Your task to perform on an android device: check the backup settings in the google photos Image 0: 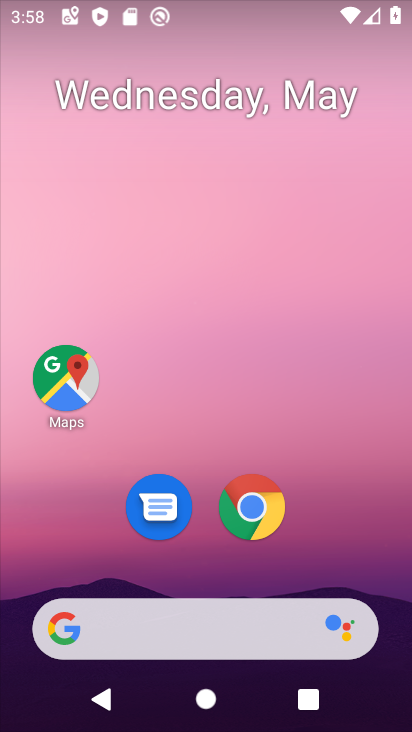
Step 0: drag from (194, 625) to (248, 85)
Your task to perform on an android device: check the backup settings in the google photos Image 1: 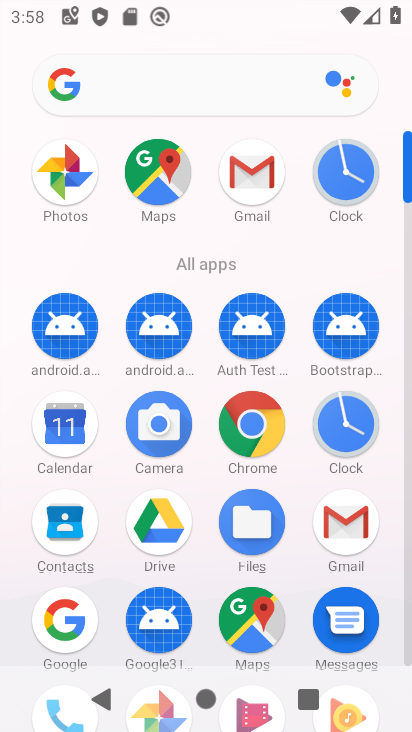
Step 1: drag from (251, 410) to (270, 200)
Your task to perform on an android device: check the backup settings in the google photos Image 2: 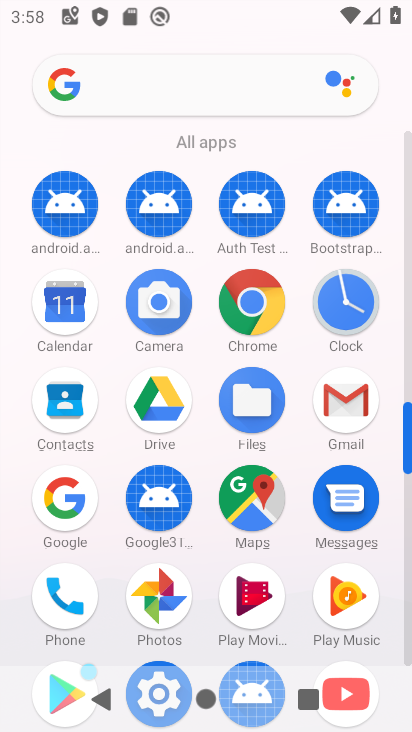
Step 2: click (166, 604)
Your task to perform on an android device: check the backup settings in the google photos Image 3: 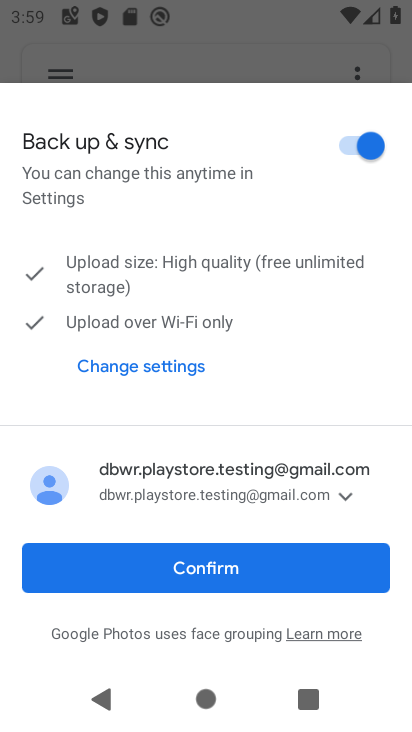
Step 3: click (265, 569)
Your task to perform on an android device: check the backup settings in the google photos Image 4: 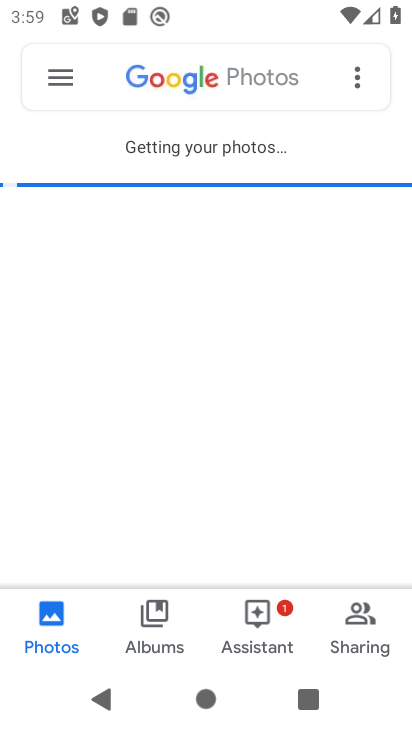
Step 4: click (71, 76)
Your task to perform on an android device: check the backup settings in the google photos Image 5: 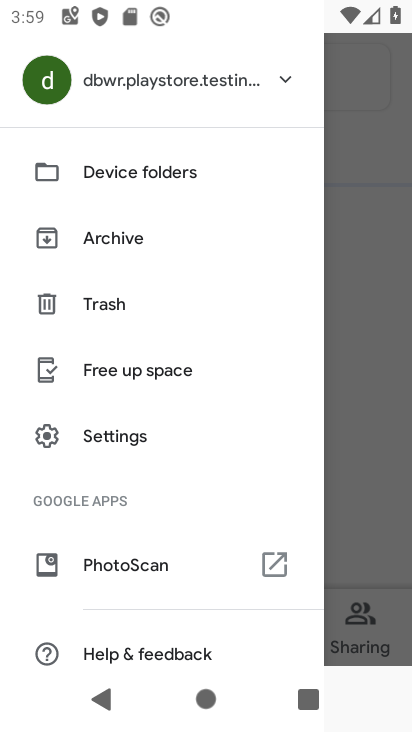
Step 5: click (141, 443)
Your task to perform on an android device: check the backup settings in the google photos Image 6: 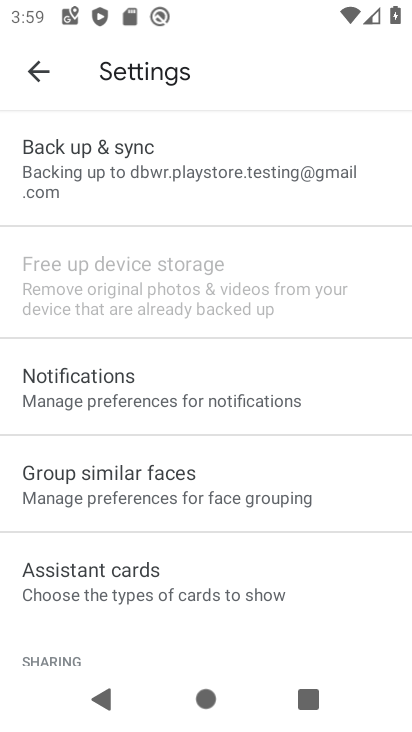
Step 6: click (193, 182)
Your task to perform on an android device: check the backup settings in the google photos Image 7: 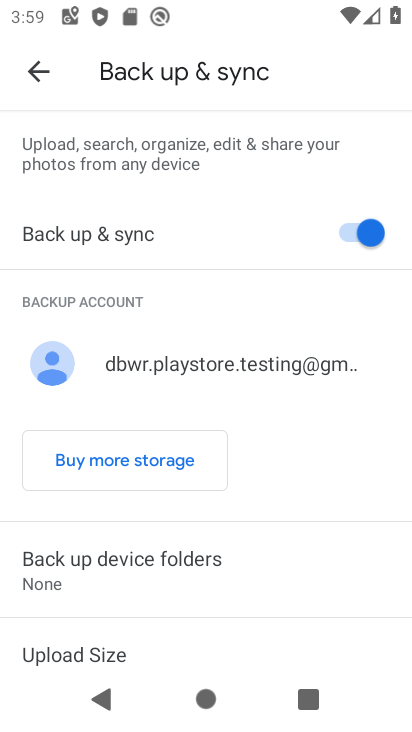
Step 7: task complete